Your task to perform on an android device: Open calendar and show me the third week of next month Image 0: 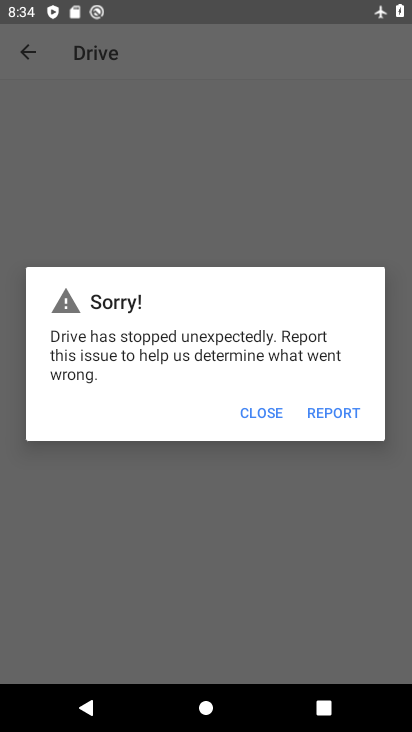
Step 0: press home button
Your task to perform on an android device: Open calendar and show me the third week of next month Image 1: 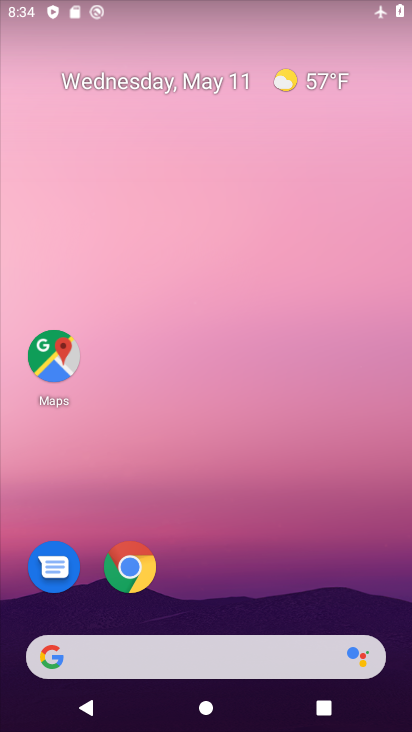
Step 1: drag from (275, 551) to (229, 67)
Your task to perform on an android device: Open calendar and show me the third week of next month Image 2: 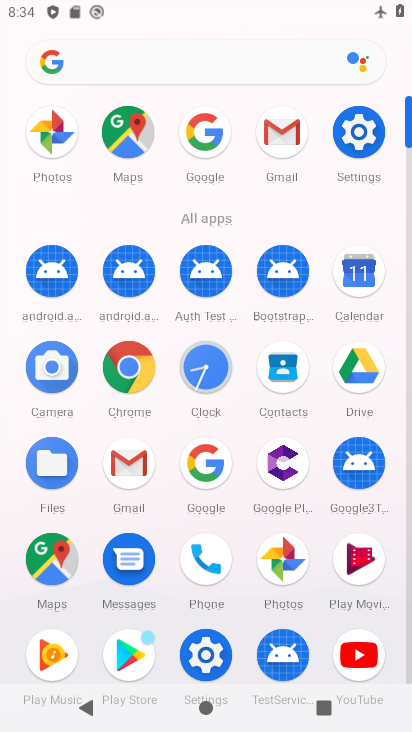
Step 2: click (367, 281)
Your task to perform on an android device: Open calendar and show me the third week of next month Image 3: 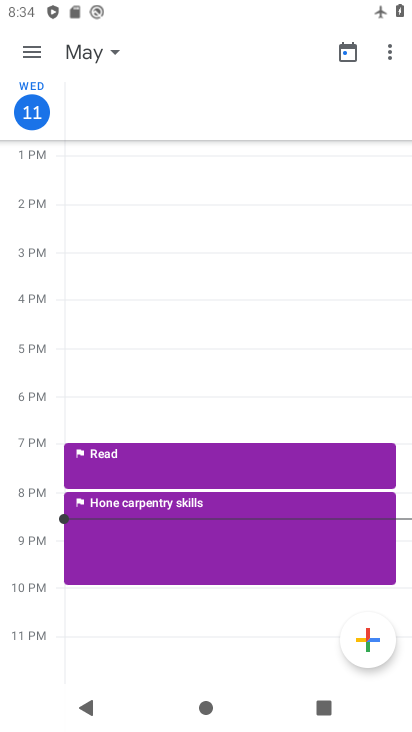
Step 3: click (26, 48)
Your task to perform on an android device: Open calendar and show me the third week of next month Image 4: 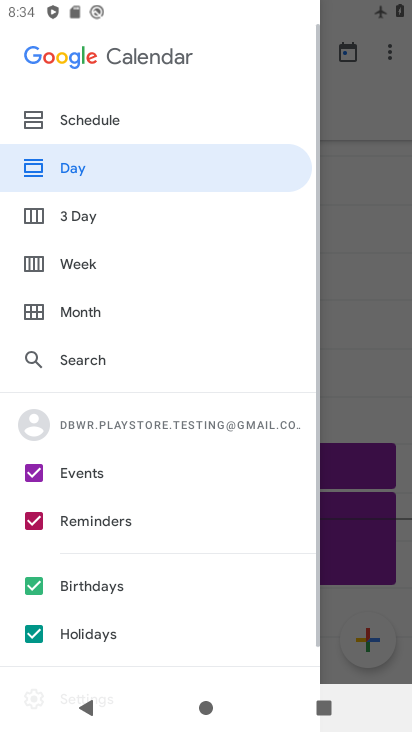
Step 4: click (99, 245)
Your task to perform on an android device: Open calendar and show me the third week of next month Image 5: 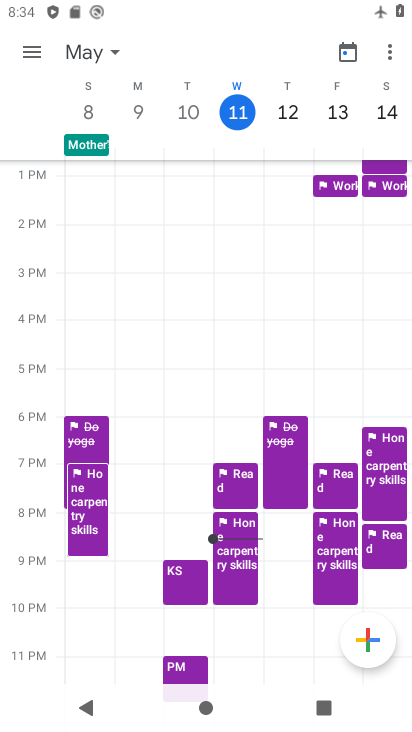
Step 5: click (111, 54)
Your task to perform on an android device: Open calendar and show me the third week of next month Image 6: 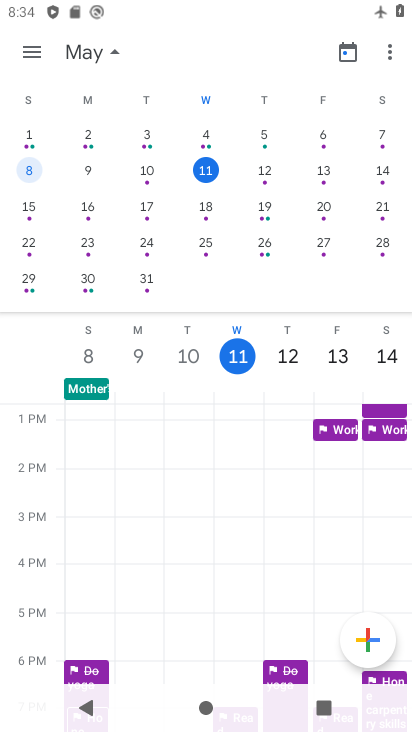
Step 6: drag from (352, 210) to (35, 243)
Your task to perform on an android device: Open calendar and show me the third week of next month Image 7: 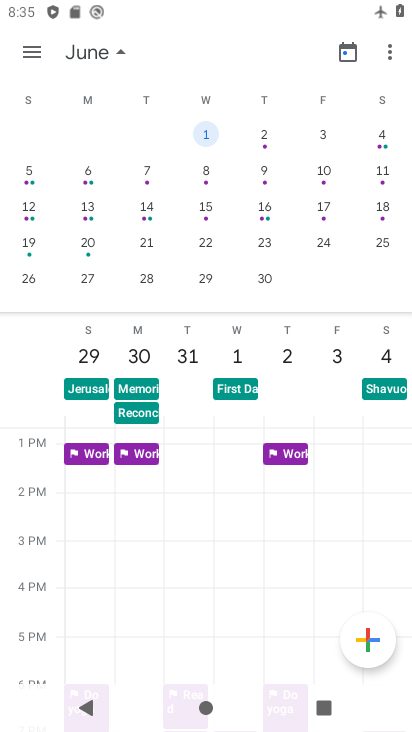
Step 7: click (34, 208)
Your task to perform on an android device: Open calendar and show me the third week of next month Image 8: 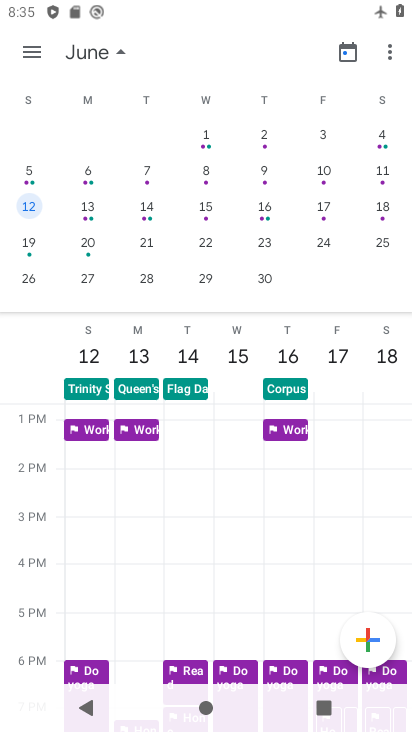
Step 8: task complete